Your task to perform on an android device: turn on notifications settings in the gmail app Image 0: 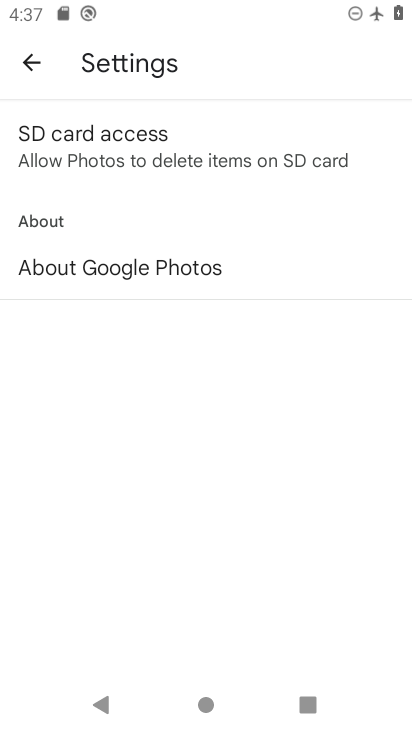
Step 0: press home button
Your task to perform on an android device: turn on notifications settings in the gmail app Image 1: 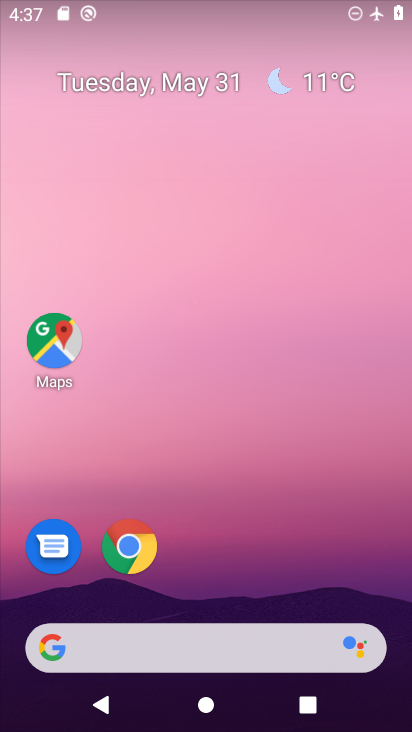
Step 1: drag from (200, 300) to (57, 33)
Your task to perform on an android device: turn on notifications settings in the gmail app Image 2: 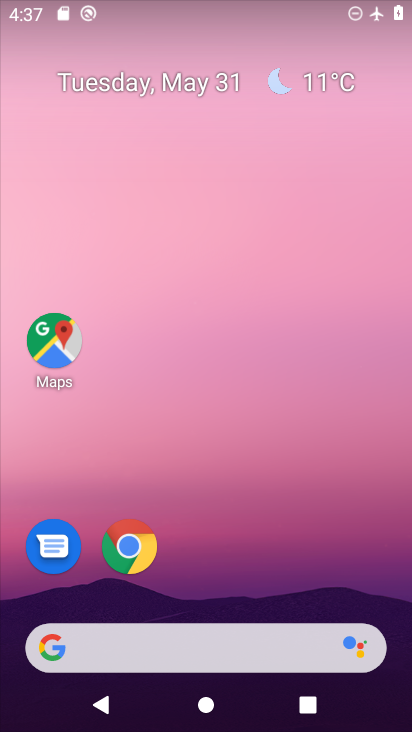
Step 2: drag from (176, 58) to (89, 6)
Your task to perform on an android device: turn on notifications settings in the gmail app Image 3: 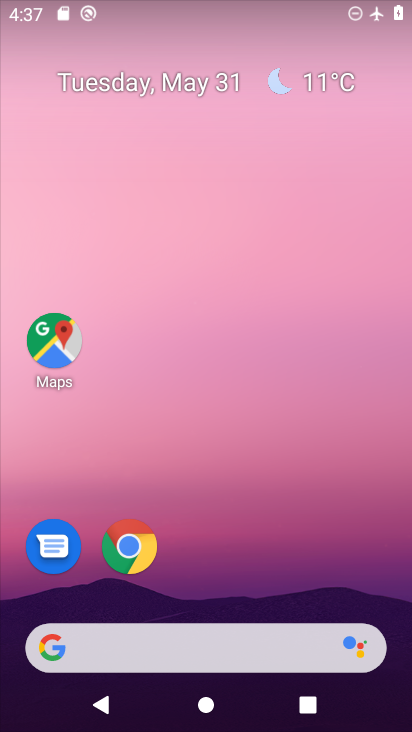
Step 3: drag from (255, 421) to (117, 4)
Your task to perform on an android device: turn on notifications settings in the gmail app Image 4: 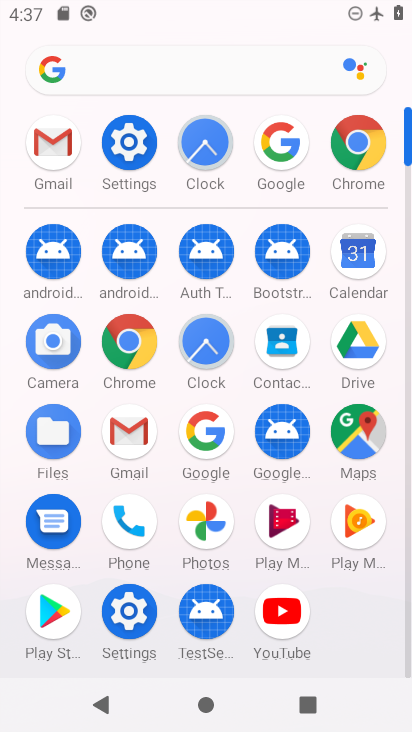
Step 4: click (36, 140)
Your task to perform on an android device: turn on notifications settings in the gmail app Image 5: 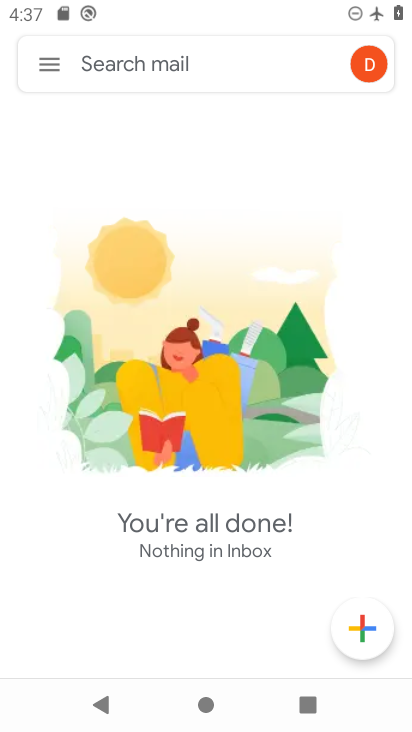
Step 5: click (59, 66)
Your task to perform on an android device: turn on notifications settings in the gmail app Image 6: 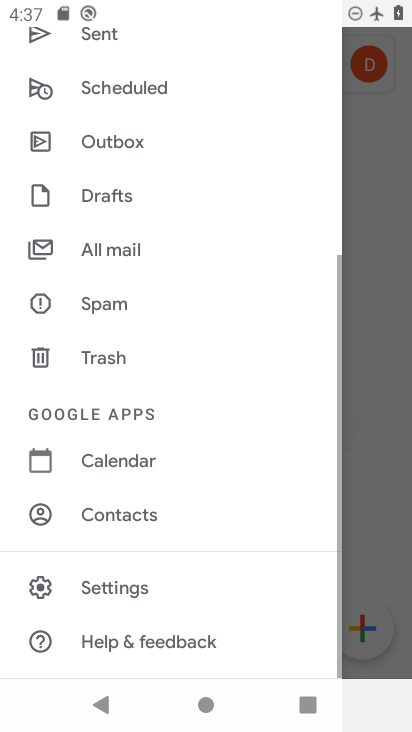
Step 6: click (132, 573)
Your task to perform on an android device: turn on notifications settings in the gmail app Image 7: 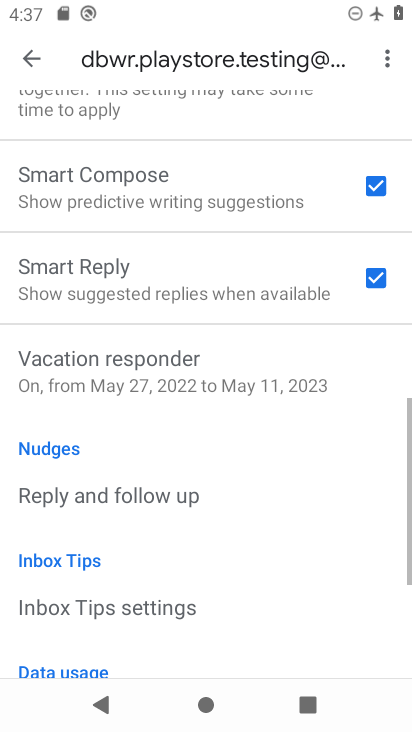
Step 7: drag from (145, 179) to (183, 707)
Your task to perform on an android device: turn on notifications settings in the gmail app Image 8: 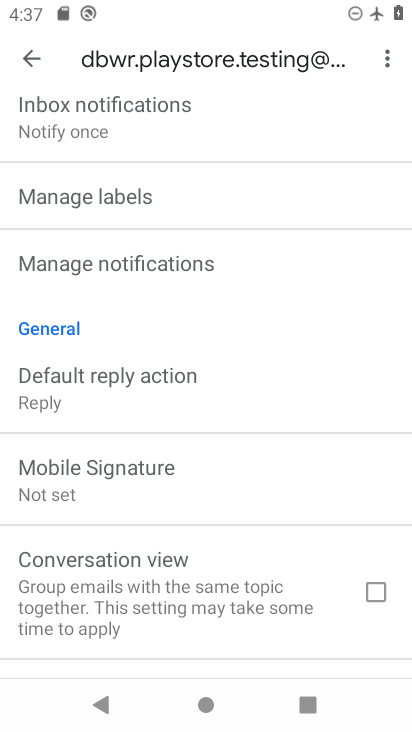
Step 8: click (116, 117)
Your task to perform on an android device: turn on notifications settings in the gmail app Image 9: 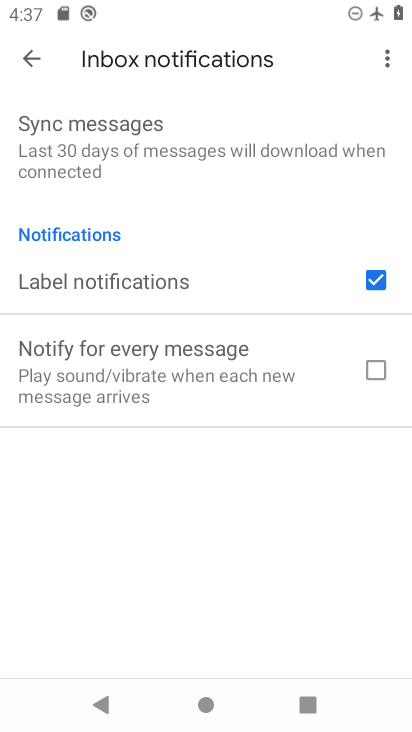
Step 9: click (33, 48)
Your task to perform on an android device: turn on notifications settings in the gmail app Image 10: 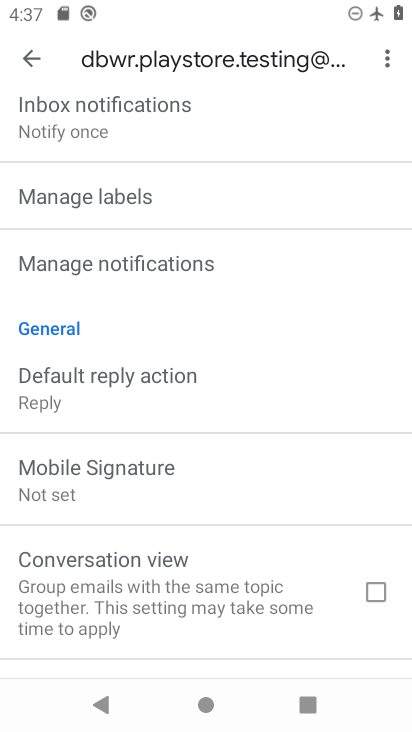
Step 10: drag from (146, 262) to (148, 555)
Your task to perform on an android device: turn on notifications settings in the gmail app Image 11: 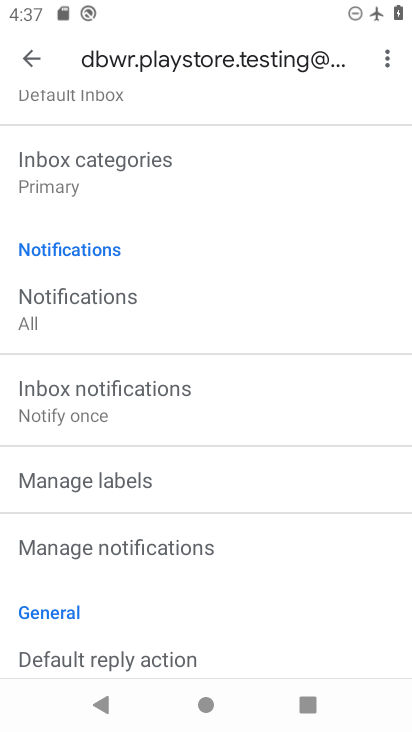
Step 11: click (145, 553)
Your task to perform on an android device: turn on notifications settings in the gmail app Image 12: 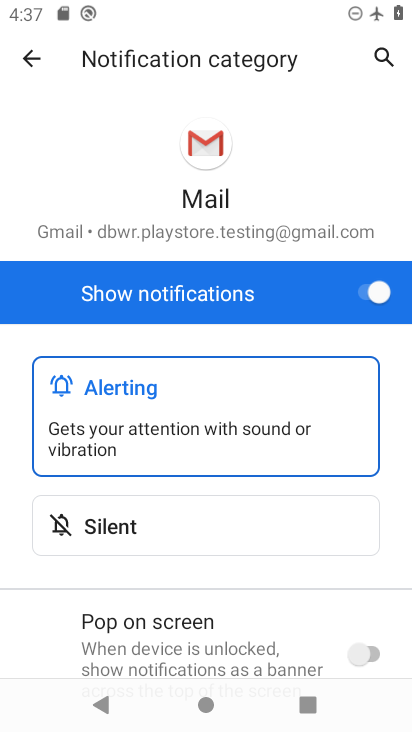
Step 12: task complete